Your task to perform on an android device: Go to calendar. Show me events next week Image 0: 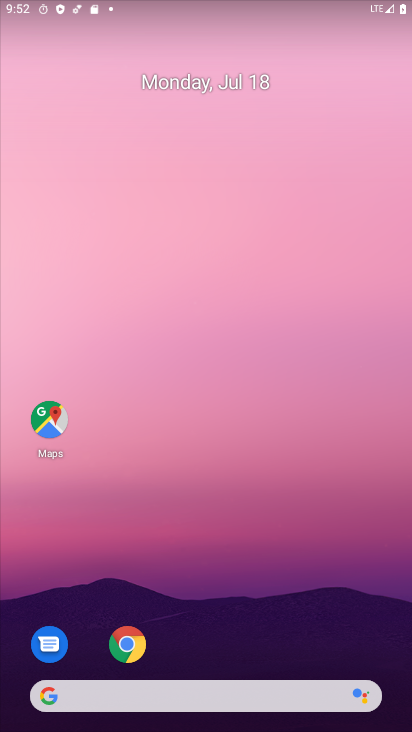
Step 0: press home button
Your task to perform on an android device: Go to calendar. Show me events next week Image 1: 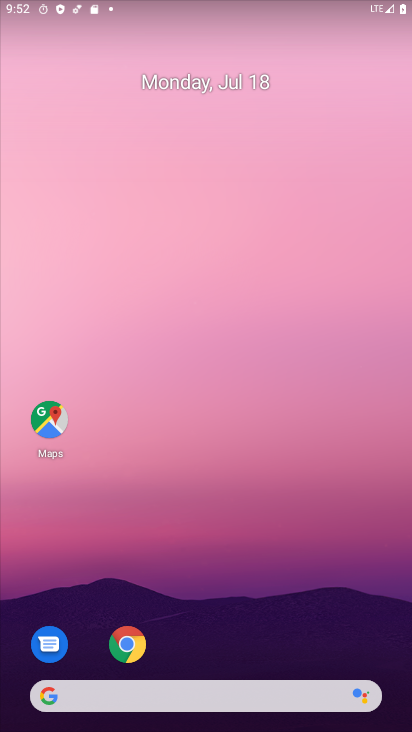
Step 1: drag from (206, 665) to (180, 83)
Your task to perform on an android device: Go to calendar. Show me events next week Image 2: 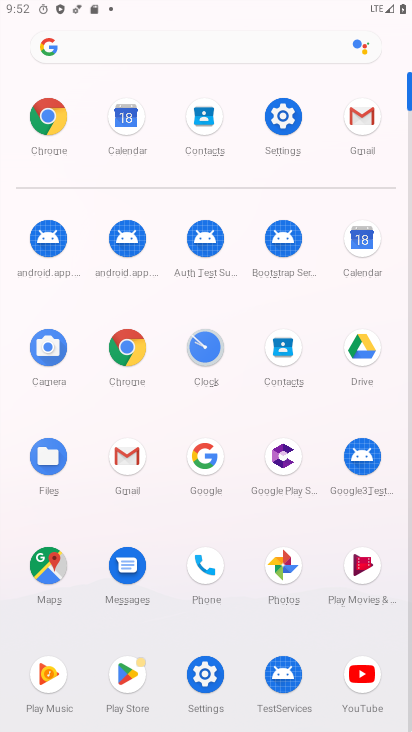
Step 2: click (357, 235)
Your task to perform on an android device: Go to calendar. Show me events next week Image 3: 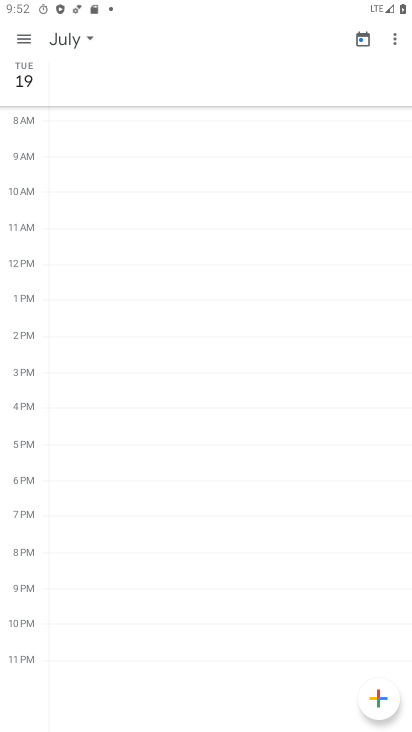
Step 3: click (36, 83)
Your task to perform on an android device: Go to calendar. Show me events next week Image 4: 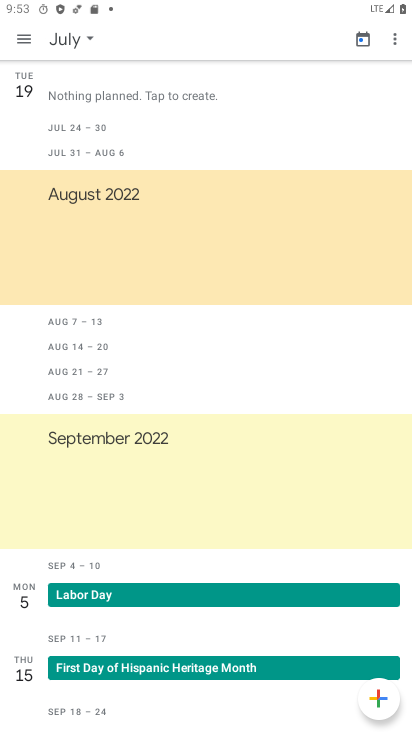
Step 4: click (18, 38)
Your task to perform on an android device: Go to calendar. Show me events next week Image 5: 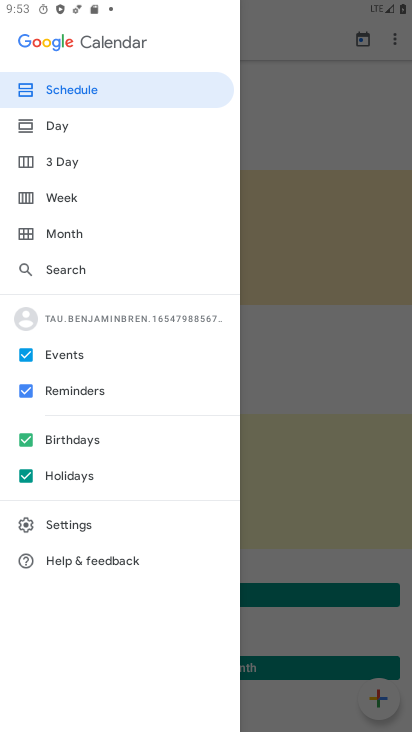
Step 5: click (69, 197)
Your task to perform on an android device: Go to calendar. Show me events next week Image 6: 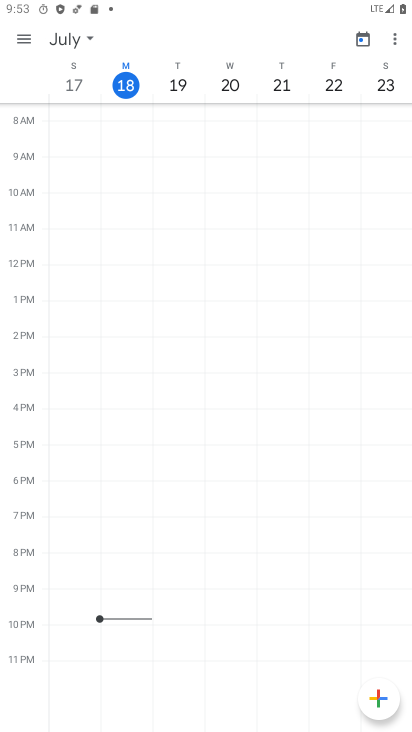
Step 6: drag from (362, 92) to (46, 89)
Your task to perform on an android device: Go to calendar. Show me events next week Image 7: 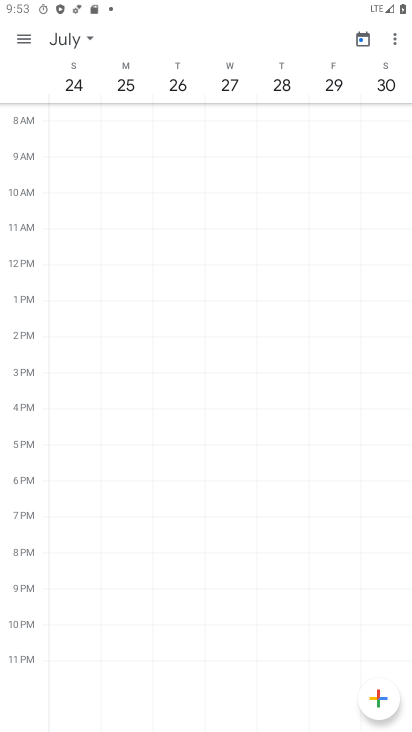
Step 7: click (71, 88)
Your task to perform on an android device: Go to calendar. Show me events next week Image 8: 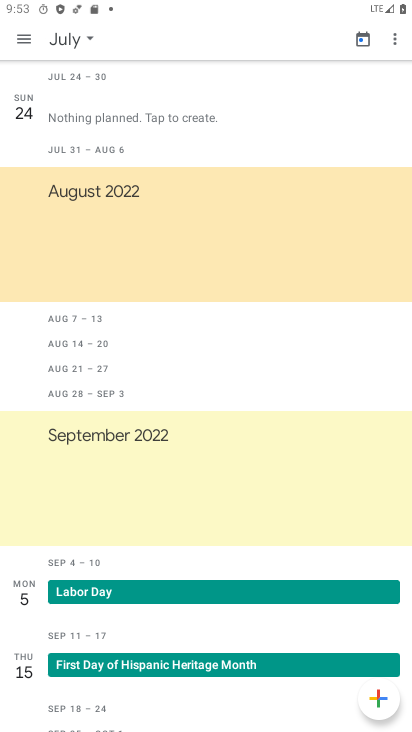
Step 8: click (33, 109)
Your task to perform on an android device: Go to calendar. Show me events next week Image 9: 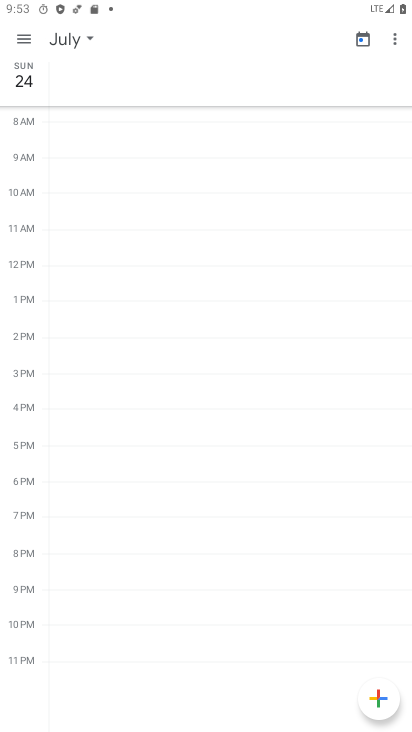
Step 9: task complete